Your task to perform on an android device: Go to eBay Image 0: 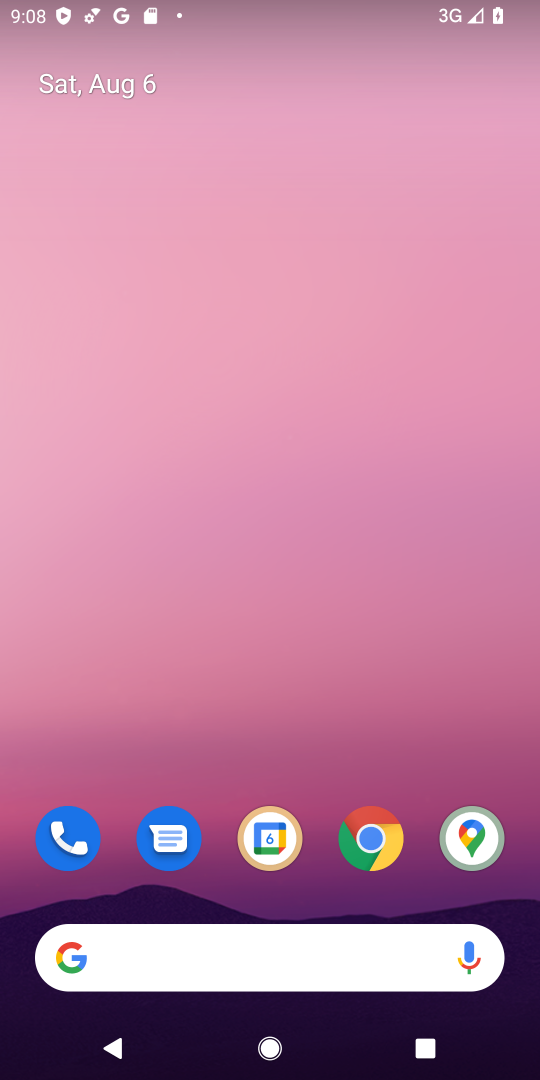
Step 0: press home button
Your task to perform on an android device: Go to eBay Image 1: 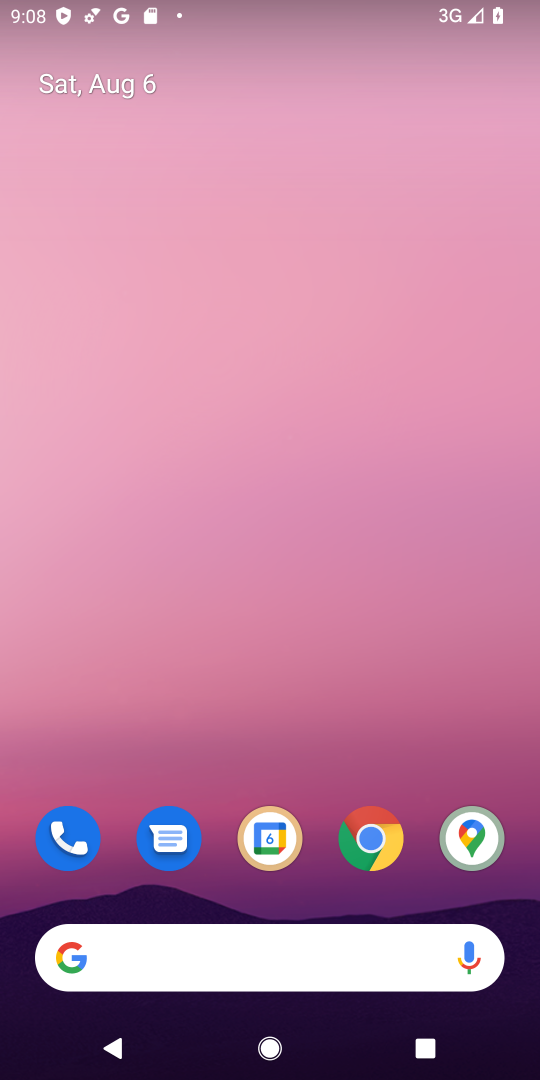
Step 1: click (379, 851)
Your task to perform on an android device: Go to eBay Image 2: 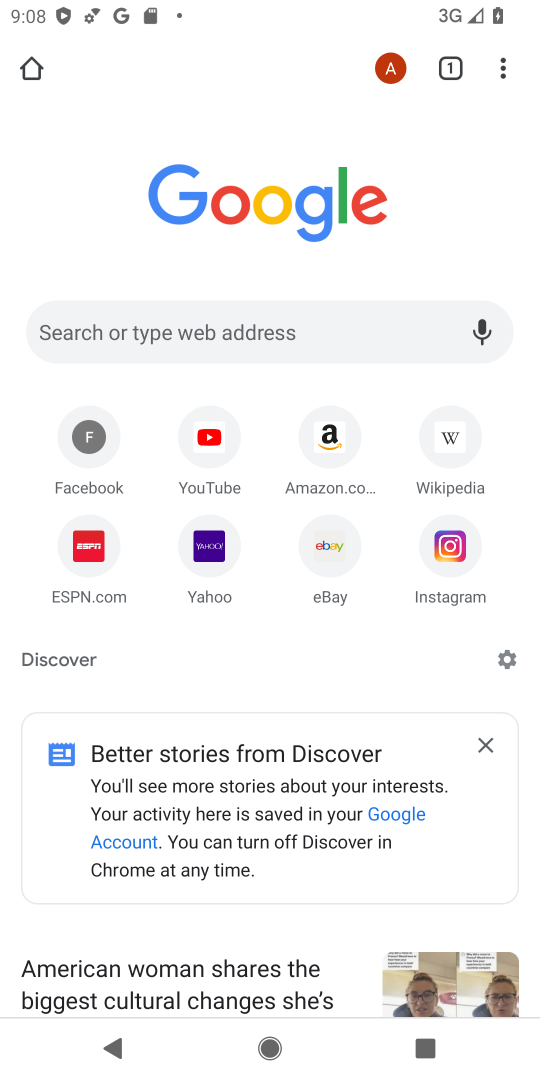
Step 2: click (320, 552)
Your task to perform on an android device: Go to eBay Image 3: 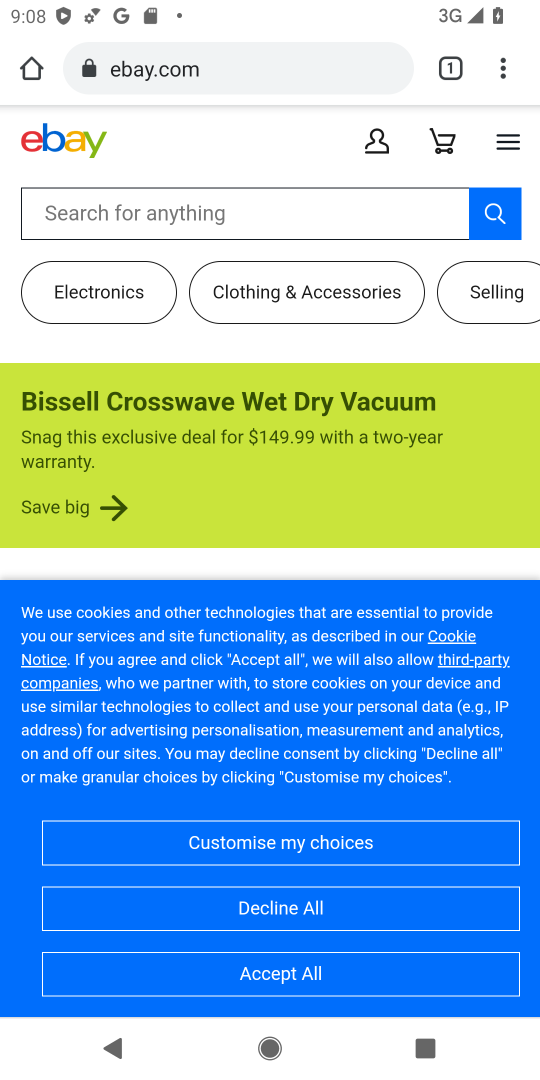
Step 3: task complete